Your task to perform on an android device: Open settings on Google Maps Image 0: 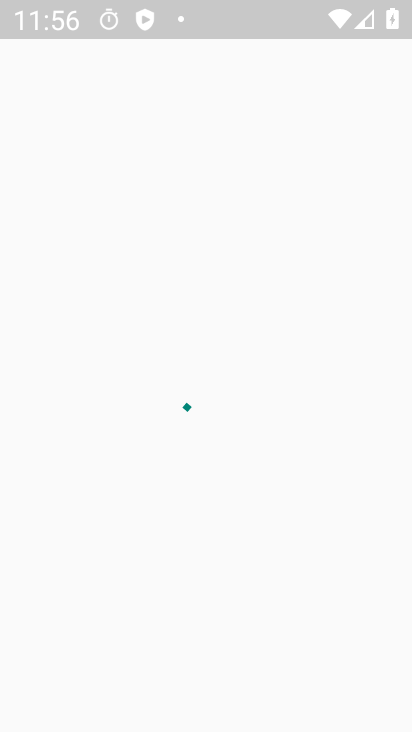
Step 0: drag from (196, 647) to (247, 253)
Your task to perform on an android device: Open settings on Google Maps Image 1: 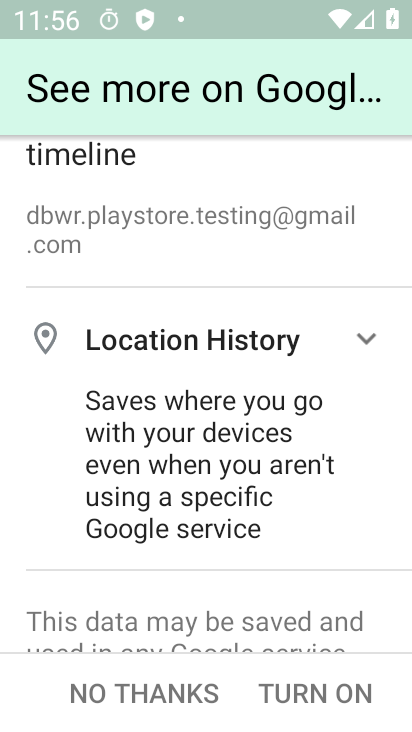
Step 1: press home button
Your task to perform on an android device: Open settings on Google Maps Image 2: 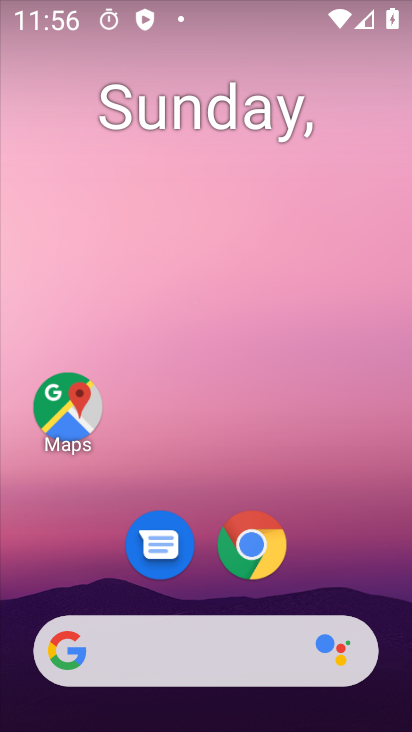
Step 2: click (83, 419)
Your task to perform on an android device: Open settings on Google Maps Image 3: 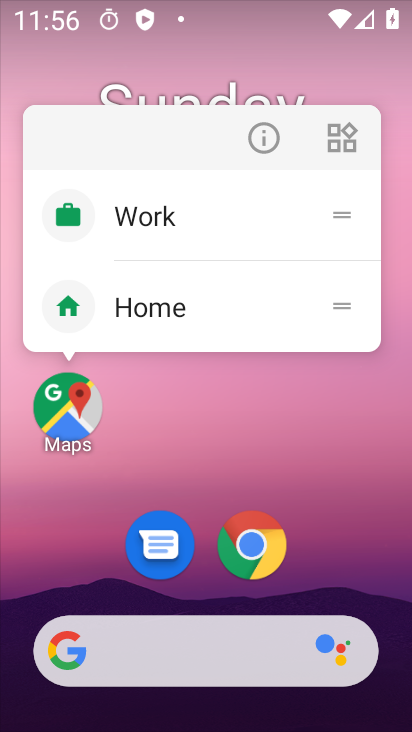
Step 3: click (261, 133)
Your task to perform on an android device: Open settings on Google Maps Image 4: 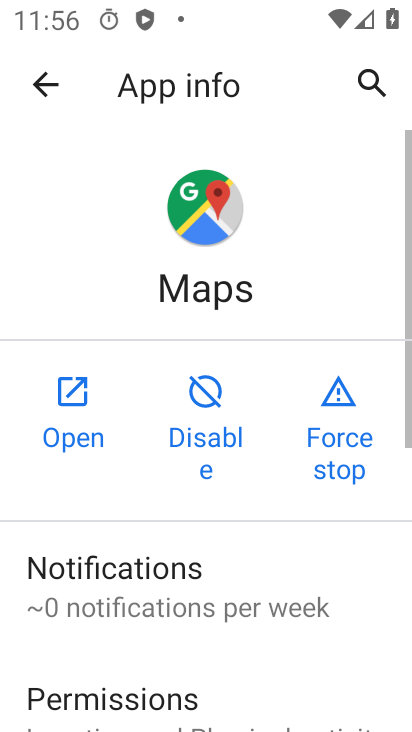
Step 4: click (82, 403)
Your task to perform on an android device: Open settings on Google Maps Image 5: 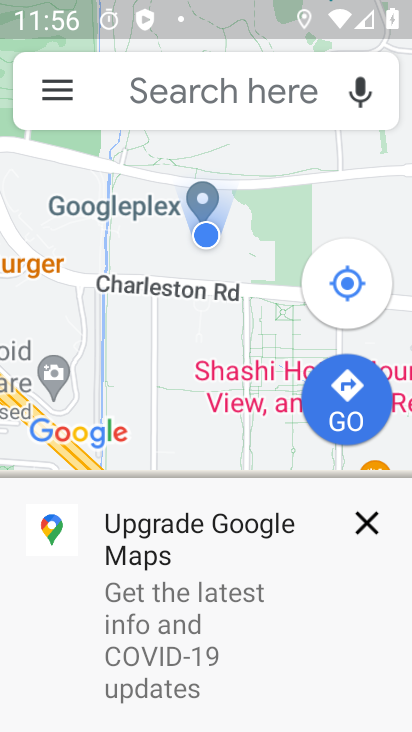
Step 5: click (57, 75)
Your task to perform on an android device: Open settings on Google Maps Image 6: 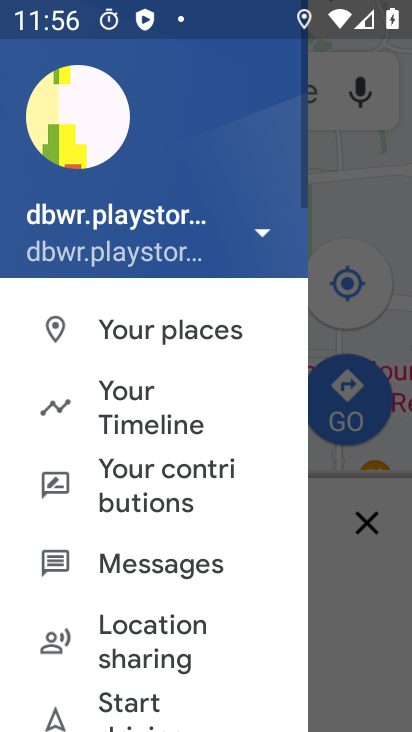
Step 6: drag from (146, 574) to (216, 107)
Your task to perform on an android device: Open settings on Google Maps Image 7: 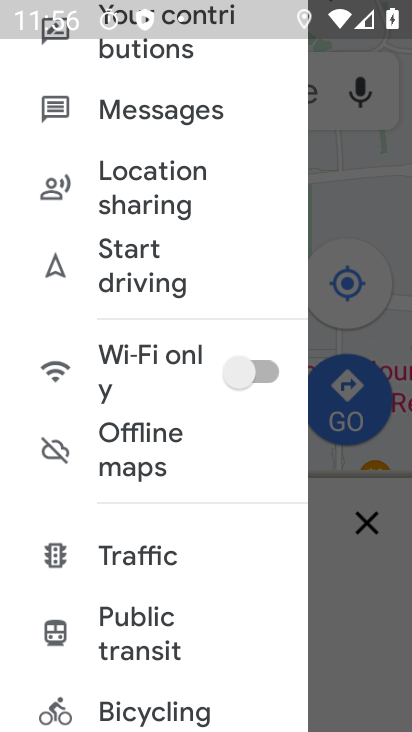
Step 7: drag from (124, 621) to (191, 153)
Your task to perform on an android device: Open settings on Google Maps Image 8: 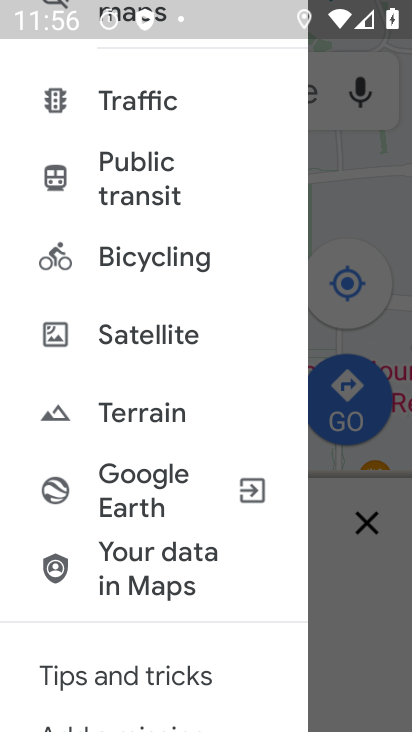
Step 8: drag from (157, 658) to (237, 232)
Your task to perform on an android device: Open settings on Google Maps Image 9: 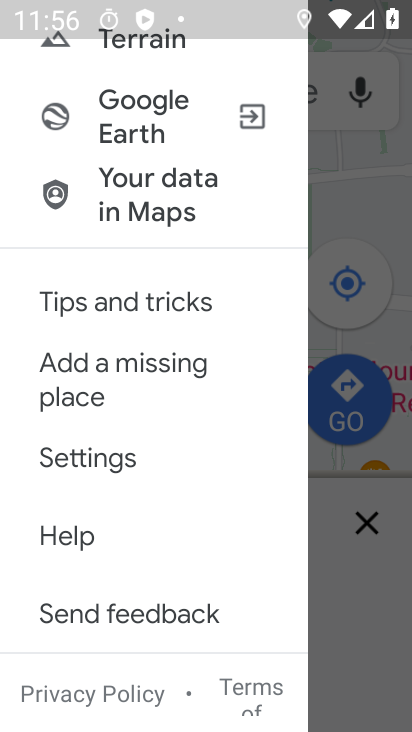
Step 9: click (157, 456)
Your task to perform on an android device: Open settings on Google Maps Image 10: 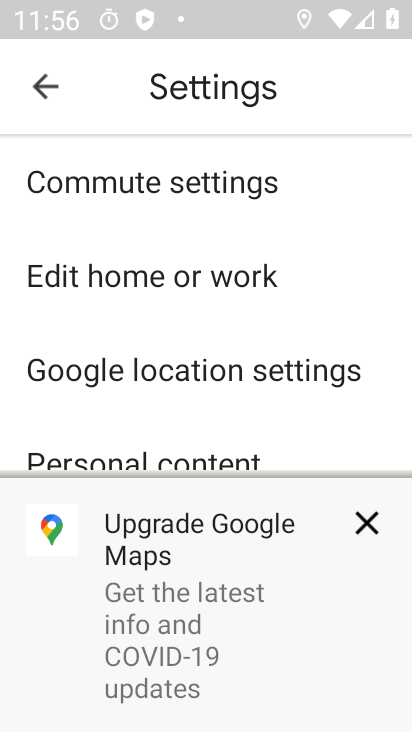
Step 10: click (364, 533)
Your task to perform on an android device: Open settings on Google Maps Image 11: 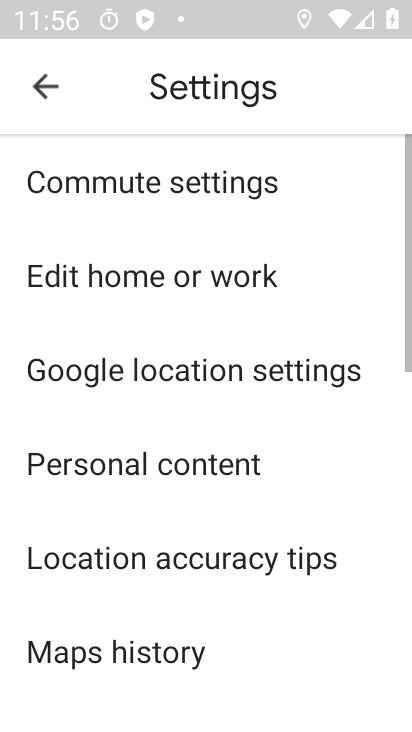
Step 11: task complete